Your task to perform on an android device: turn on location history Image 0: 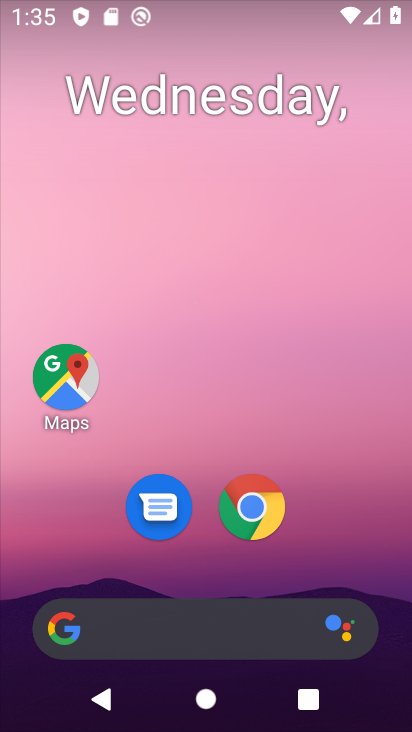
Step 0: drag from (393, 650) to (339, 341)
Your task to perform on an android device: turn on location history Image 1: 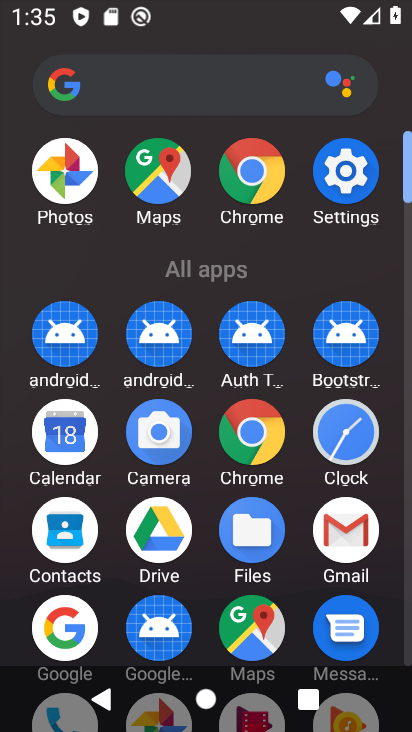
Step 1: click (355, 189)
Your task to perform on an android device: turn on location history Image 2: 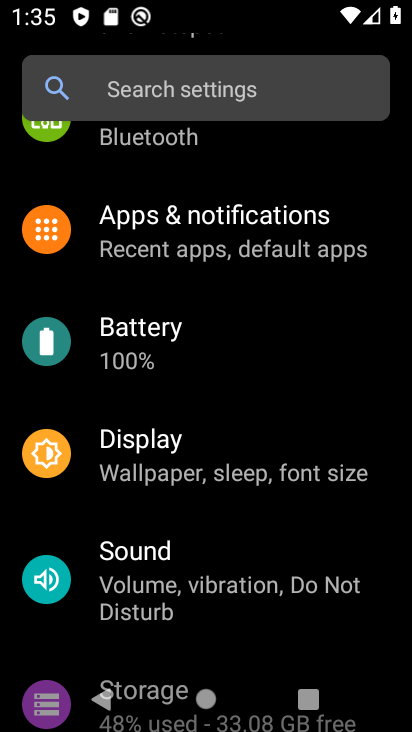
Step 2: drag from (367, 683) to (327, 332)
Your task to perform on an android device: turn on location history Image 3: 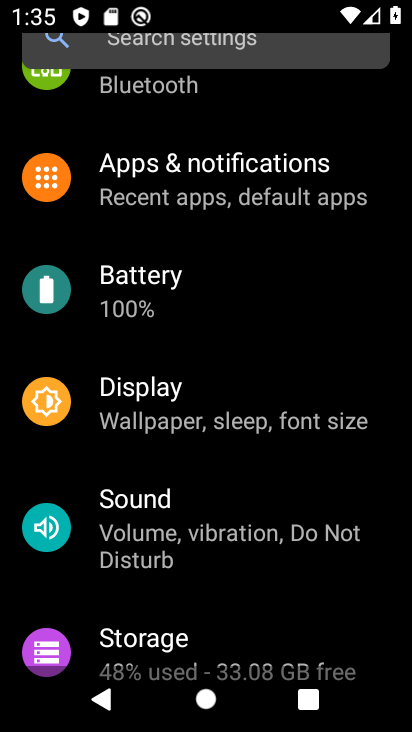
Step 3: drag from (374, 676) to (360, 364)
Your task to perform on an android device: turn on location history Image 4: 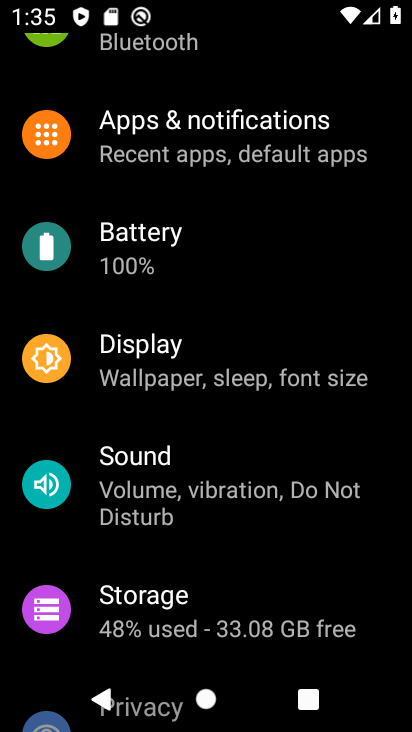
Step 4: drag from (368, 665) to (307, 259)
Your task to perform on an android device: turn on location history Image 5: 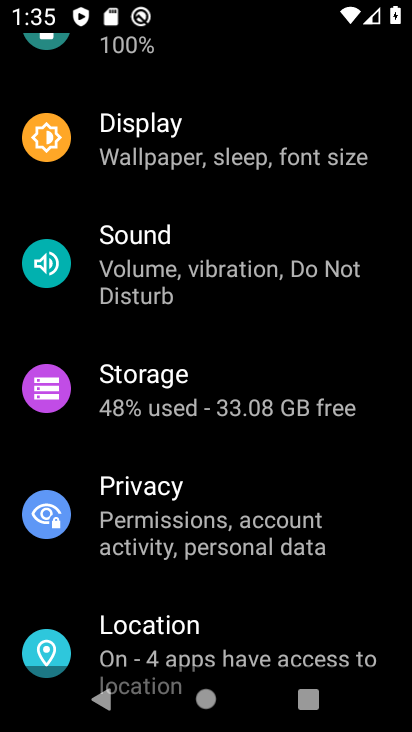
Step 5: click (122, 635)
Your task to perform on an android device: turn on location history Image 6: 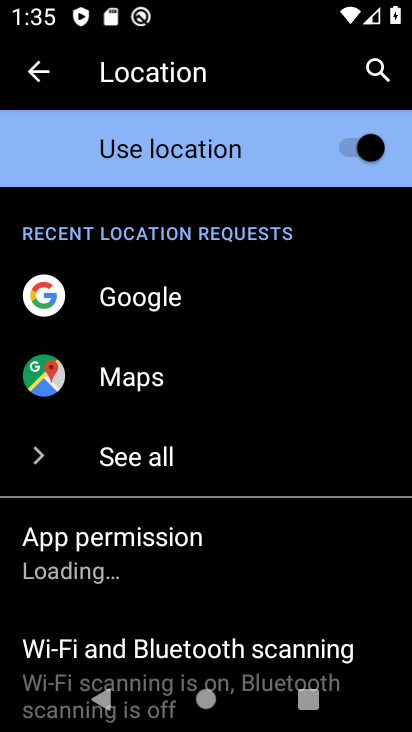
Step 6: drag from (272, 605) to (257, 363)
Your task to perform on an android device: turn on location history Image 7: 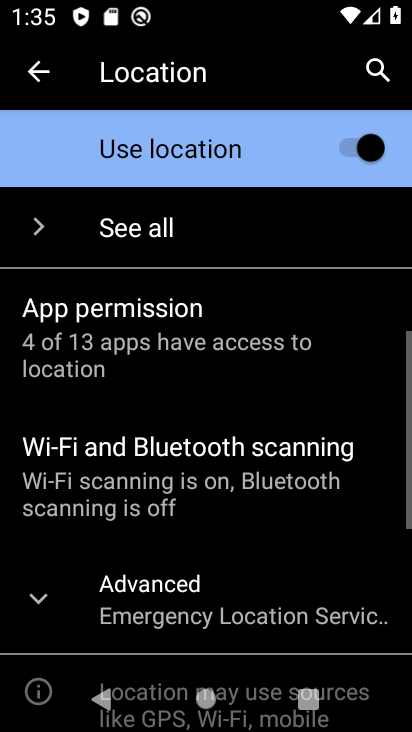
Step 7: click (47, 576)
Your task to perform on an android device: turn on location history Image 8: 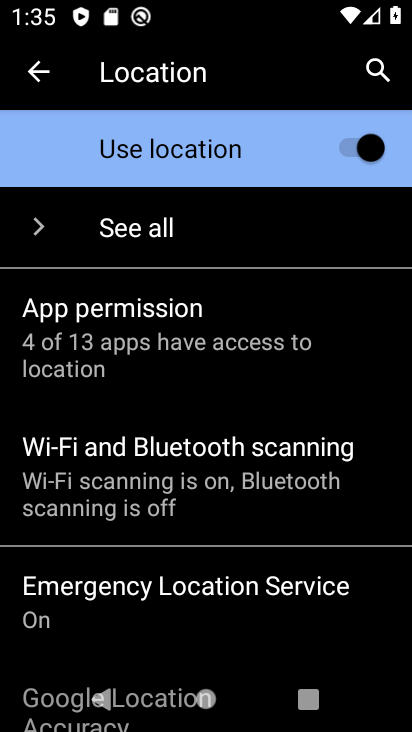
Step 8: drag from (351, 651) to (311, 413)
Your task to perform on an android device: turn on location history Image 9: 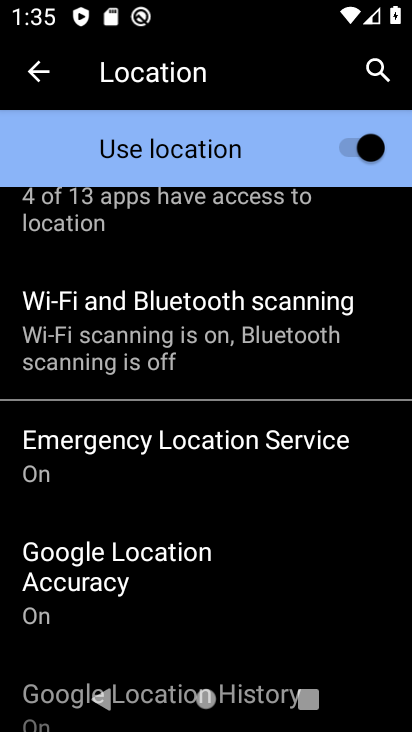
Step 9: drag from (254, 645) to (246, 458)
Your task to perform on an android device: turn on location history Image 10: 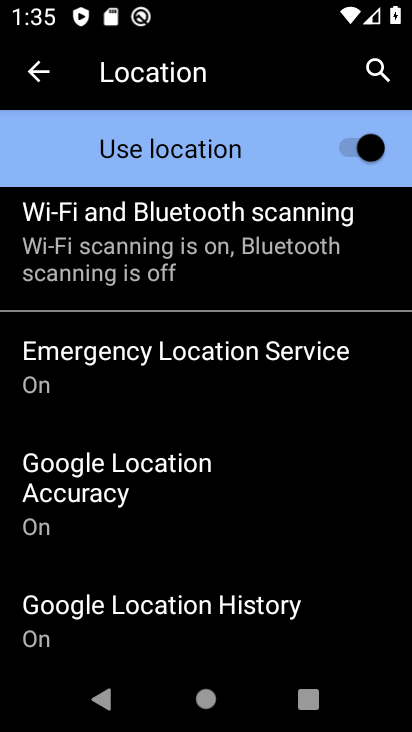
Step 10: click (121, 631)
Your task to perform on an android device: turn on location history Image 11: 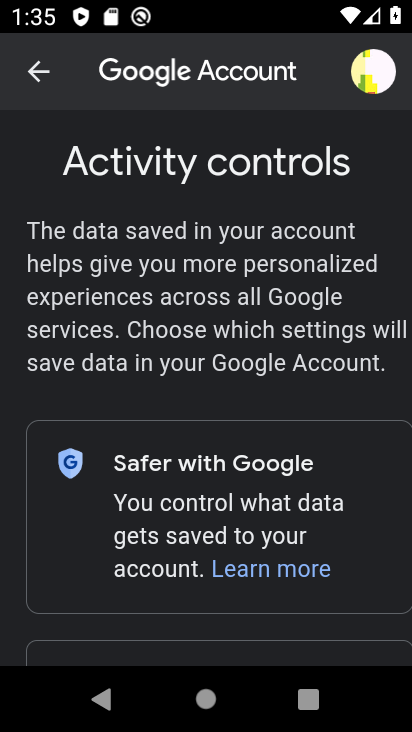
Step 11: task complete